Your task to perform on an android device: toggle location history Image 0: 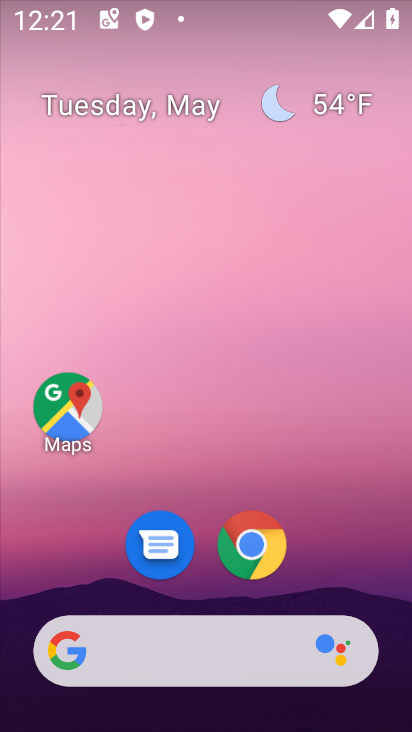
Step 0: drag from (343, 607) to (297, 141)
Your task to perform on an android device: toggle location history Image 1: 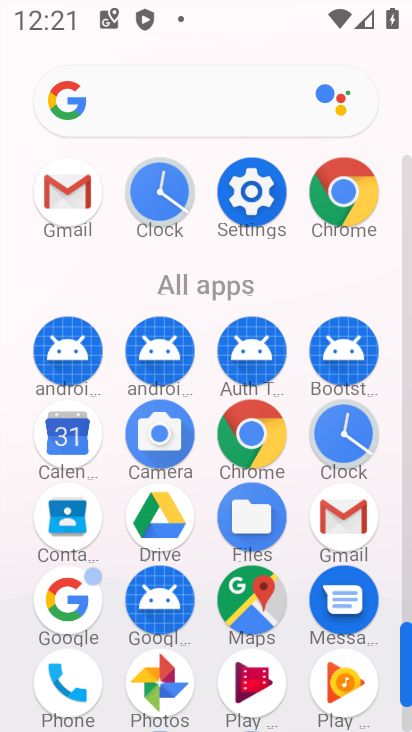
Step 1: click (237, 205)
Your task to perform on an android device: toggle location history Image 2: 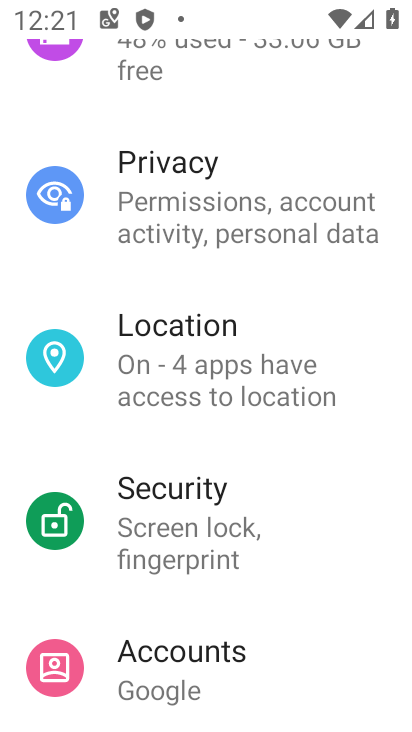
Step 2: drag from (211, 615) to (165, 326)
Your task to perform on an android device: toggle location history Image 3: 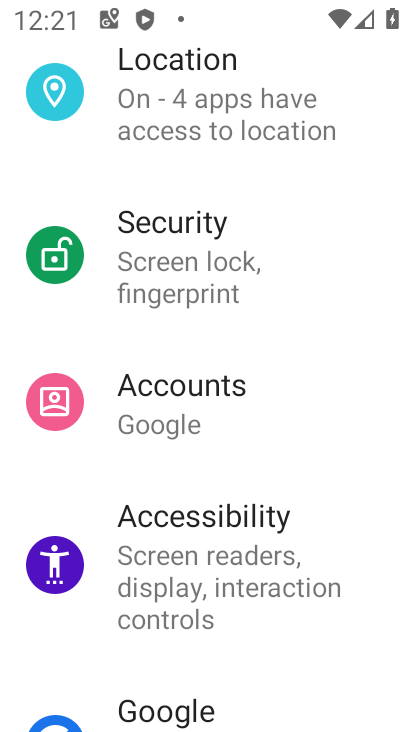
Step 3: click (164, 124)
Your task to perform on an android device: toggle location history Image 4: 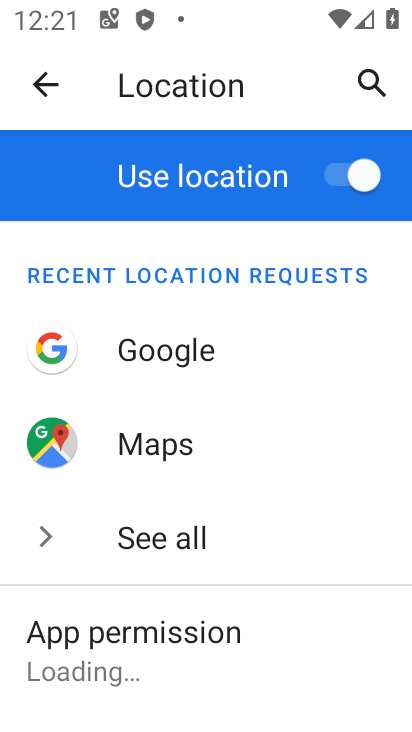
Step 4: drag from (226, 594) to (211, 162)
Your task to perform on an android device: toggle location history Image 5: 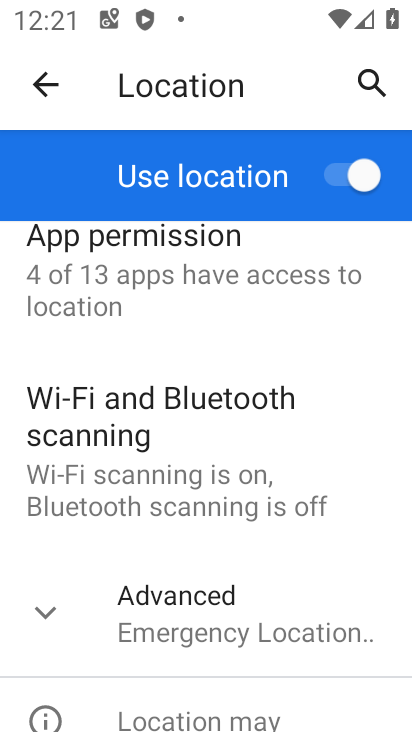
Step 5: click (203, 636)
Your task to perform on an android device: toggle location history Image 6: 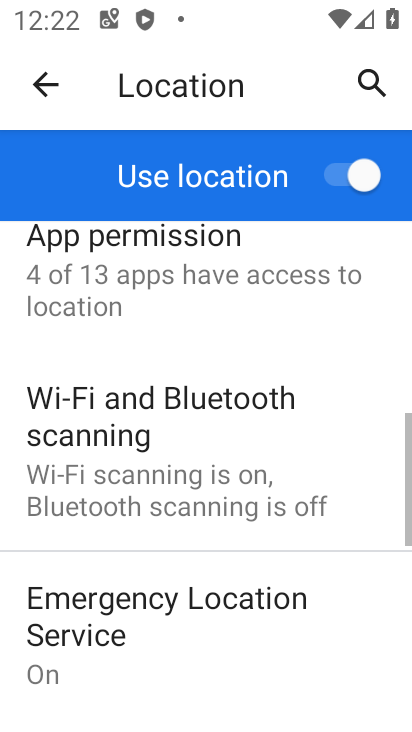
Step 6: drag from (203, 636) to (175, 317)
Your task to perform on an android device: toggle location history Image 7: 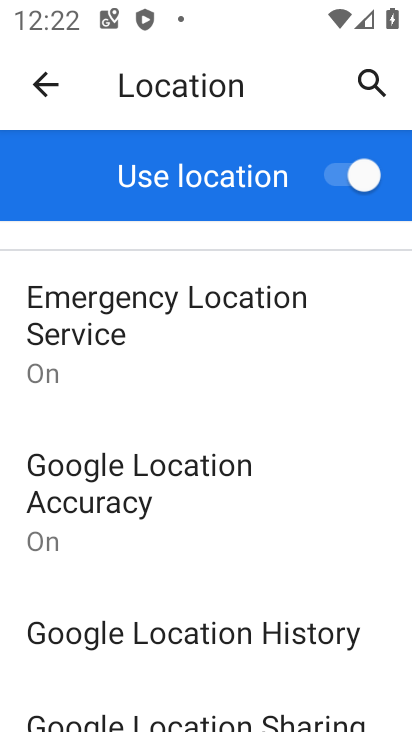
Step 7: click (149, 633)
Your task to perform on an android device: toggle location history Image 8: 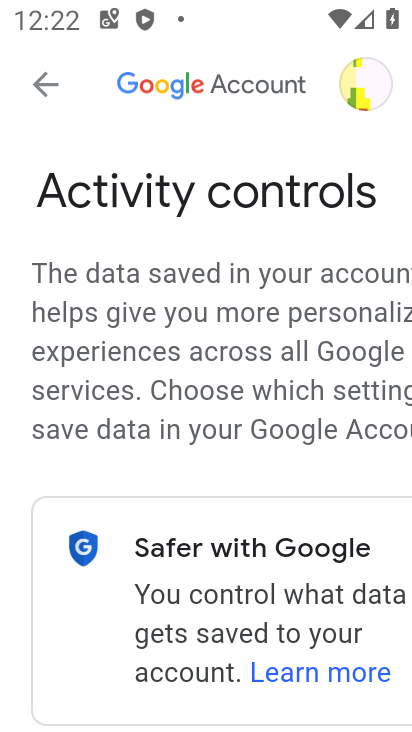
Step 8: drag from (216, 587) to (197, 229)
Your task to perform on an android device: toggle location history Image 9: 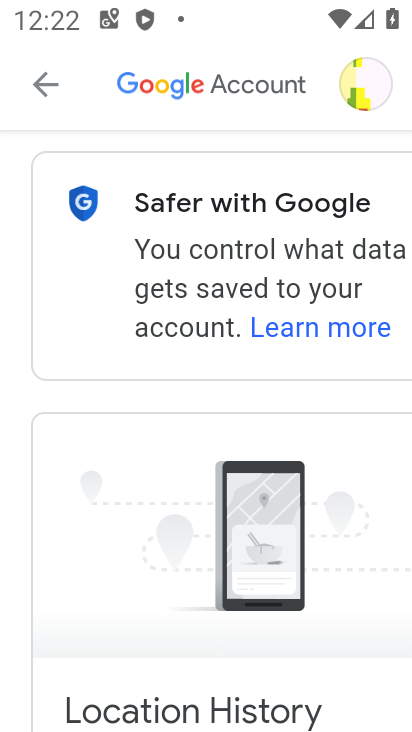
Step 9: drag from (189, 619) to (157, 135)
Your task to perform on an android device: toggle location history Image 10: 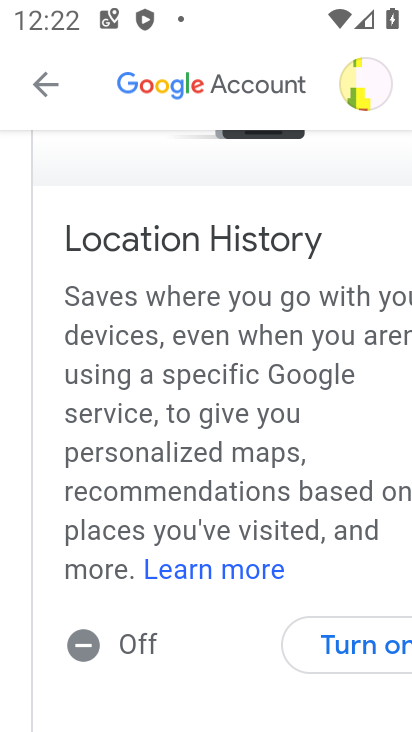
Step 10: drag from (159, 624) to (139, 422)
Your task to perform on an android device: toggle location history Image 11: 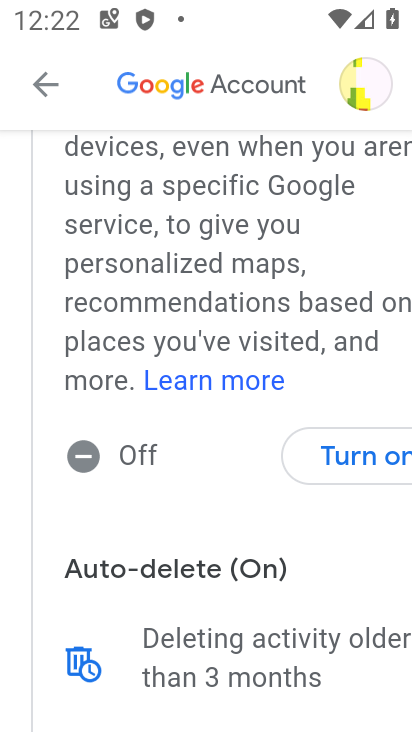
Step 11: click (351, 463)
Your task to perform on an android device: toggle location history Image 12: 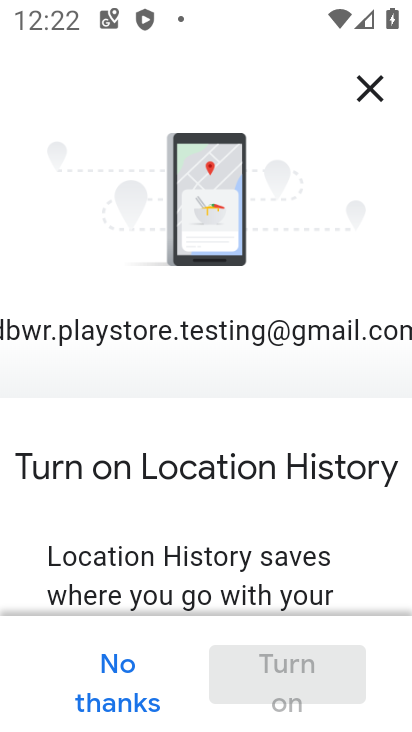
Step 12: drag from (221, 580) to (224, 124)
Your task to perform on an android device: toggle location history Image 13: 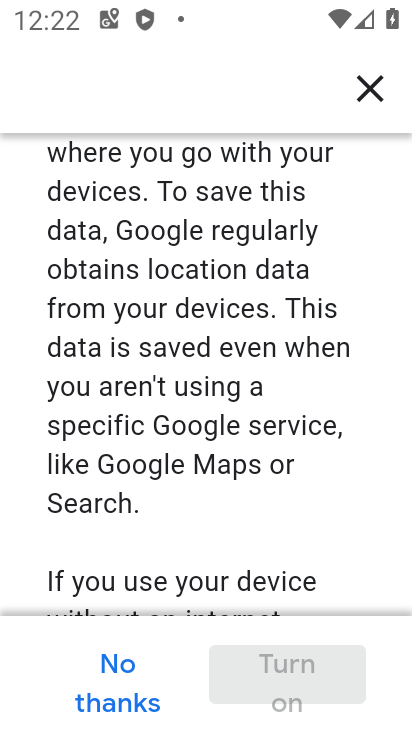
Step 13: drag from (258, 518) to (233, 31)
Your task to perform on an android device: toggle location history Image 14: 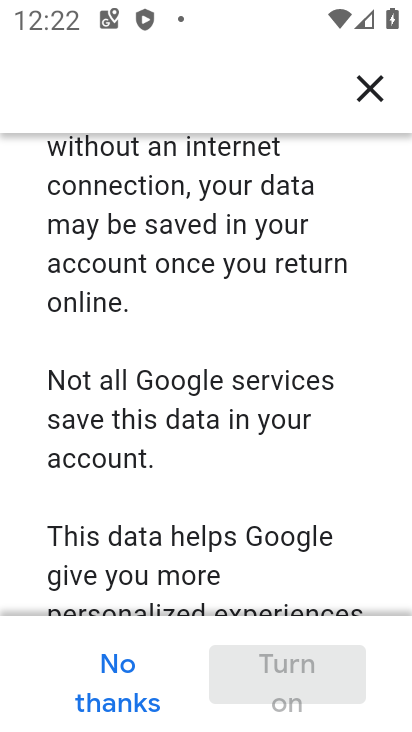
Step 14: drag from (278, 573) to (252, 161)
Your task to perform on an android device: toggle location history Image 15: 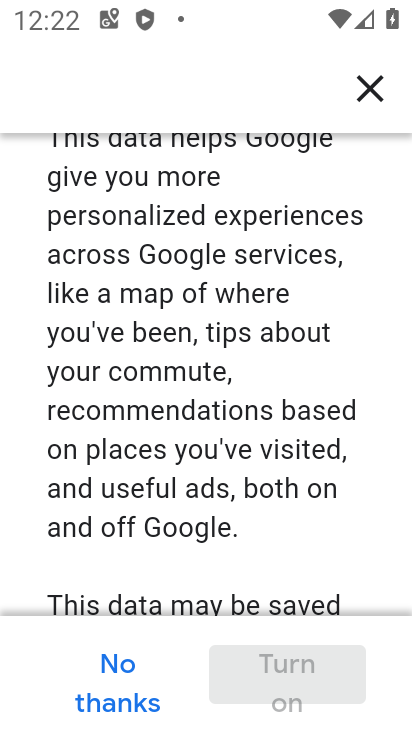
Step 15: drag from (271, 601) to (251, 170)
Your task to perform on an android device: toggle location history Image 16: 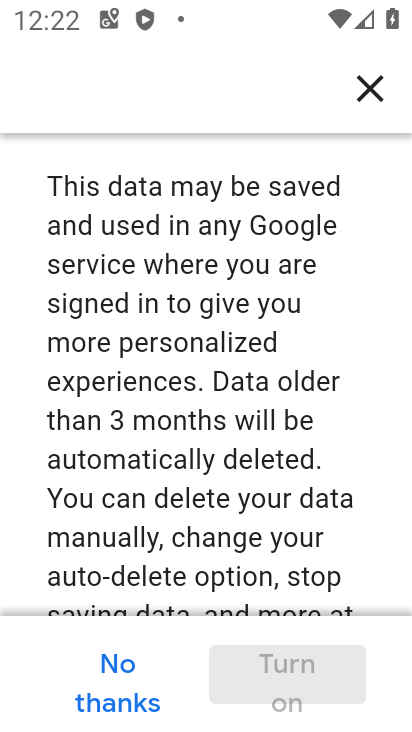
Step 16: drag from (316, 570) to (292, 64)
Your task to perform on an android device: toggle location history Image 17: 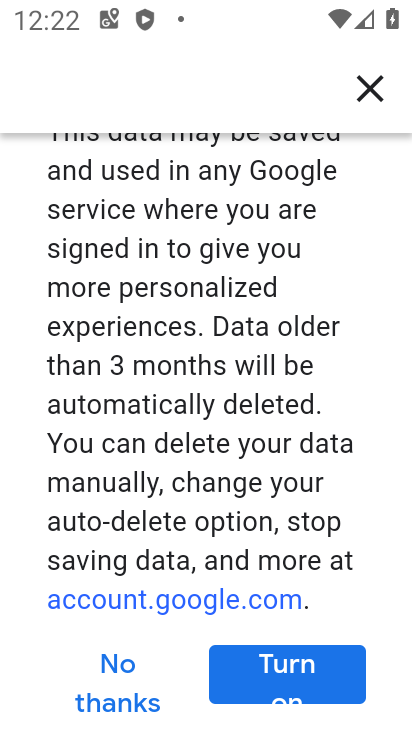
Step 17: click (281, 659)
Your task to perform on an android device: toggle location history Image 18: 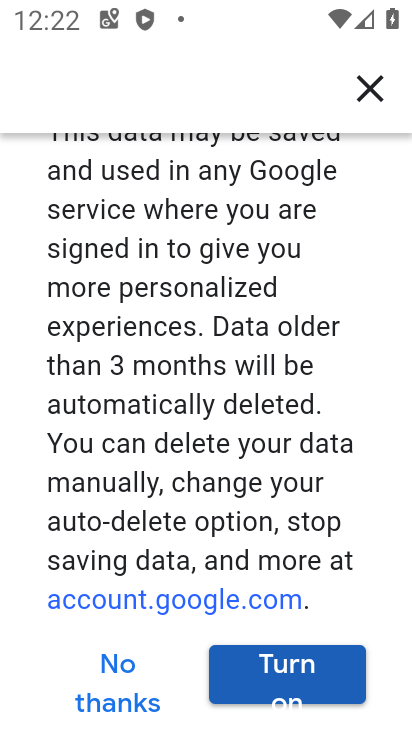
Step 18: click (307, 680)
Your task to perform on an android device: toggle location history Image 19: 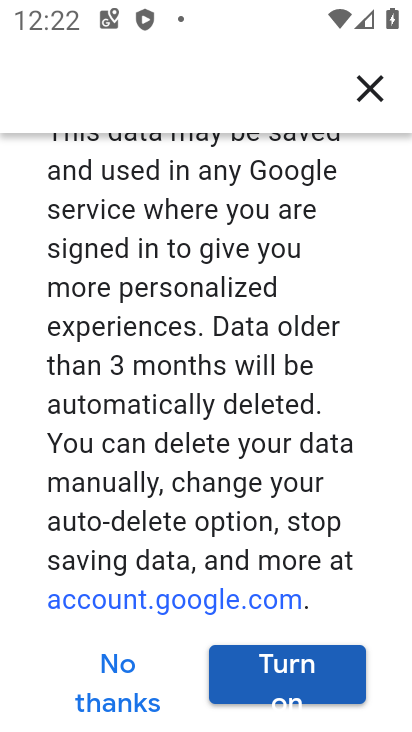
Step 19: click (307, 680)
Your task to perform on an android device: toggle location history Image 20: 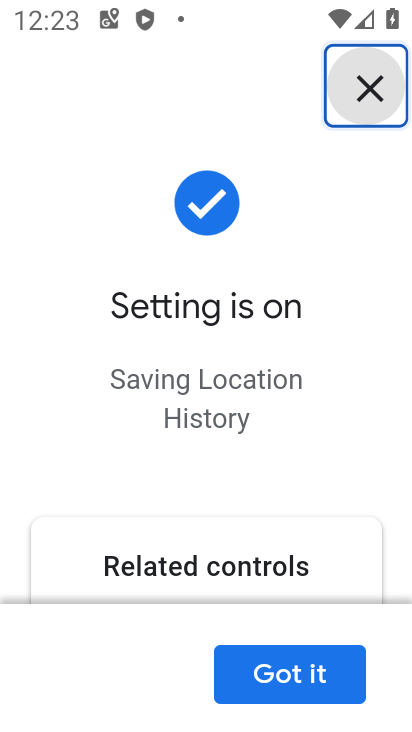
Step 20: click (307, 680)
Your task to perform on an android device: toggle location history Image 21: 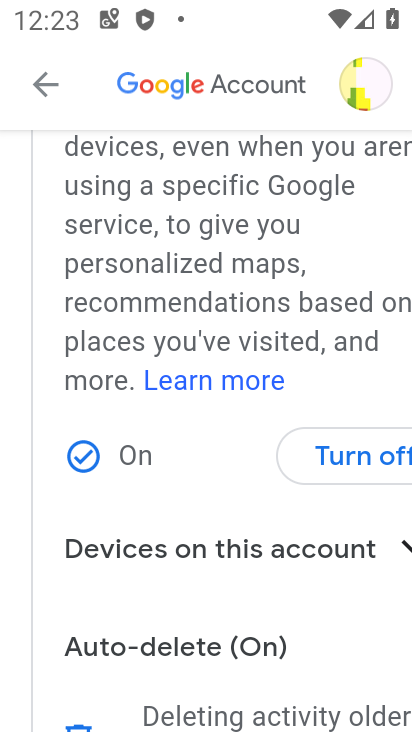
Step 21: task complete